Your task to perform on an android device: Check the news Image 0: 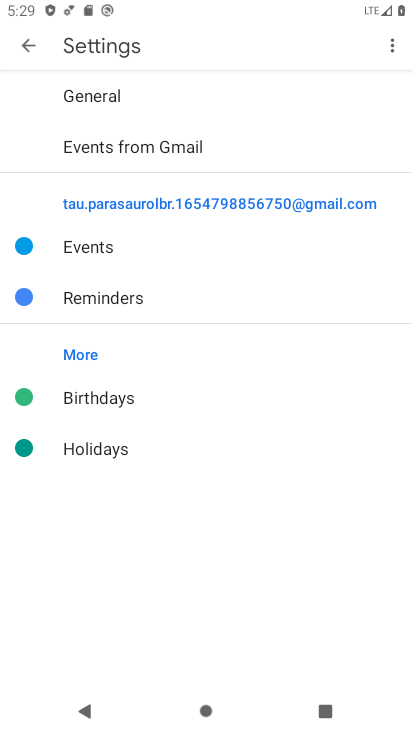
Step 0: press home button
Your task to perform on an android device: Check the news Image 1: 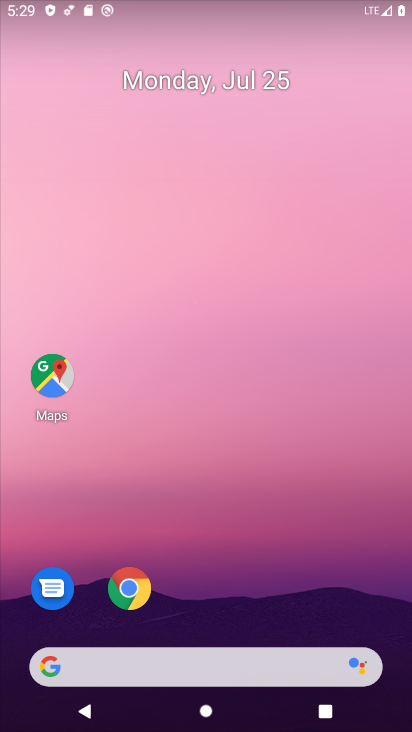
Step 1: drag from (149, 671) to (170, 139)
Your task to perform on an android device: Check the news Image 2: 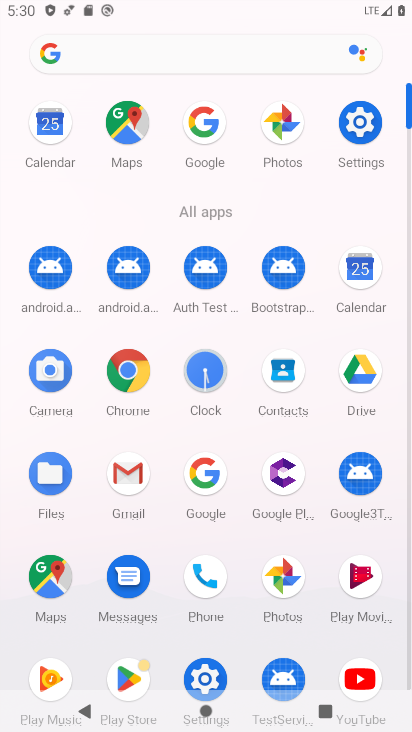
Step 2: click (202, 474)
Your task to perform on an android device: Check the news Image 3: 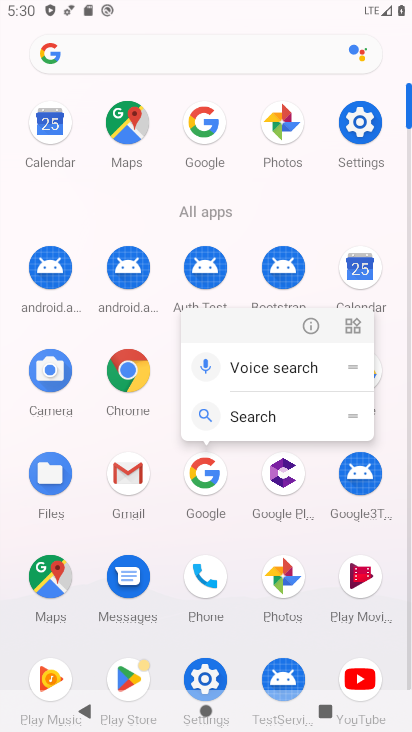
Step 3: click (202, 474)
Your task to perform on an android device: Check the news Image 4: 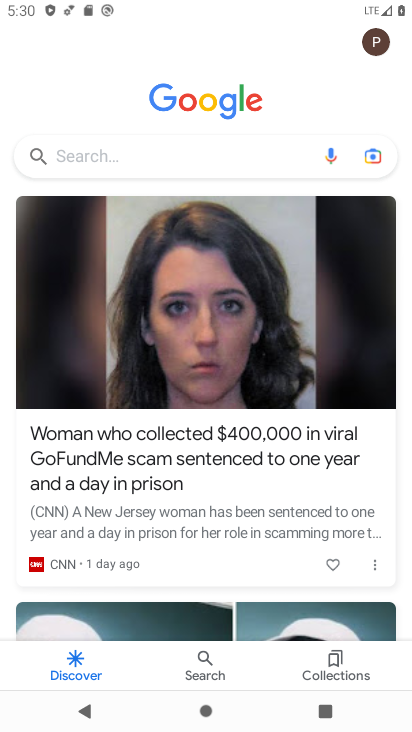
Step 4: click (185, 166)
Your task to perform on an android device: Check the news Image 5: 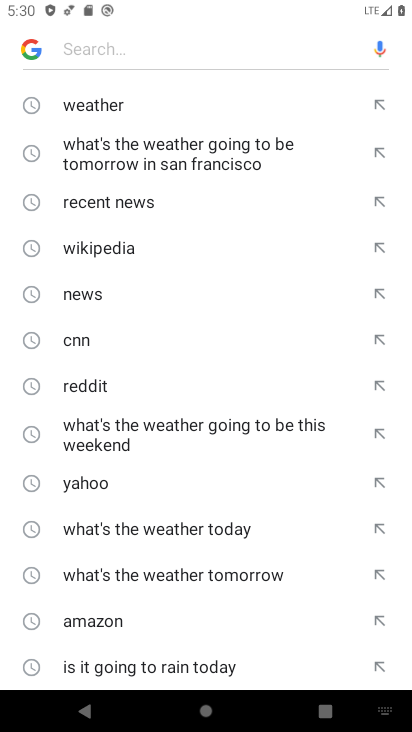
Step 5: type "news"
Your task to perform on an android device: Check the news Image 6: 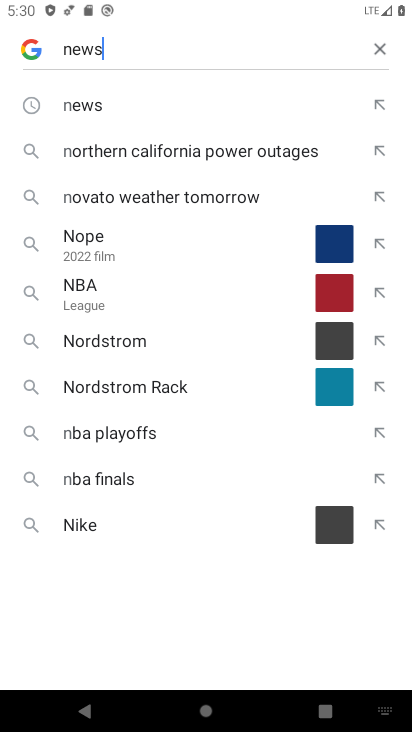
Step 6: type ""
Your task to perform on an android device: Check the news Image 7: 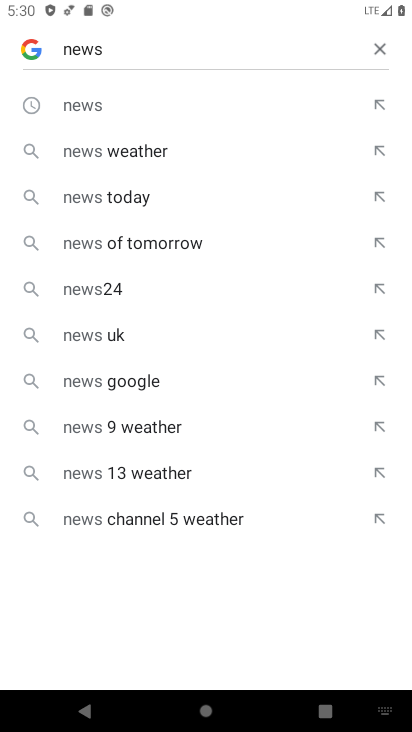
Step 7: click (90, 111)
Your task to perform on an android device: Check the news Image 8: 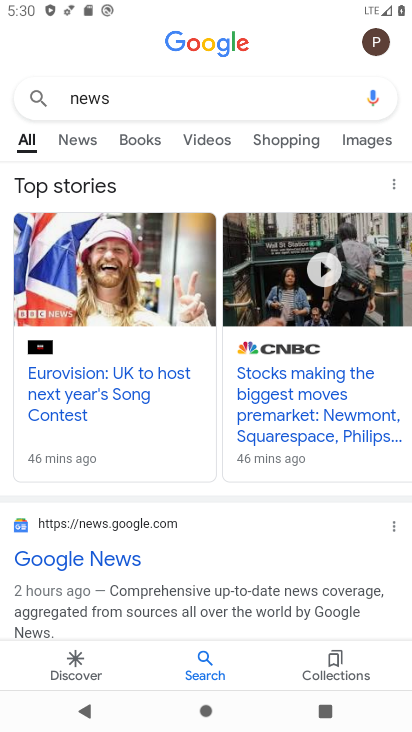
Step 8: click (124, 385)
Your task to perform on an android device: Check the news Image 9: 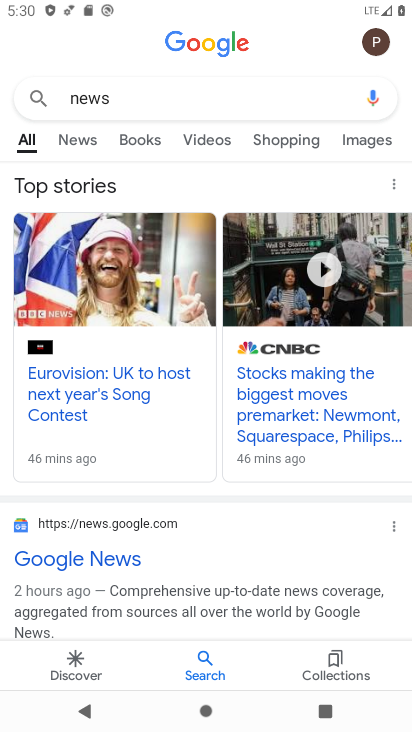
Step 9: click (65, 409)
Your task to perform on an android device: Check the news Image 10: 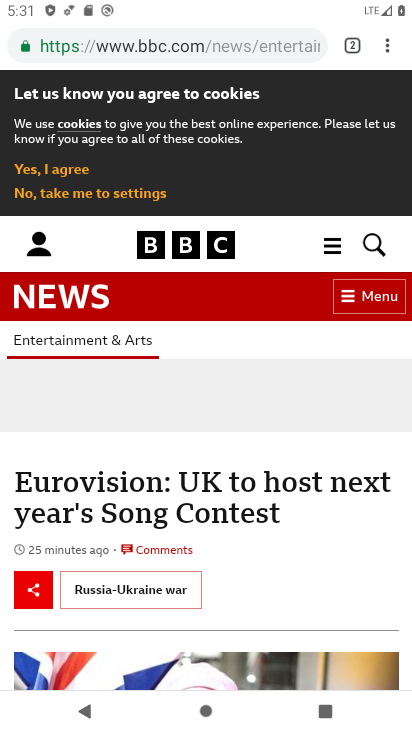
Step 10: task complete